Your task to perform on an android device: Go to network settings Image 0: 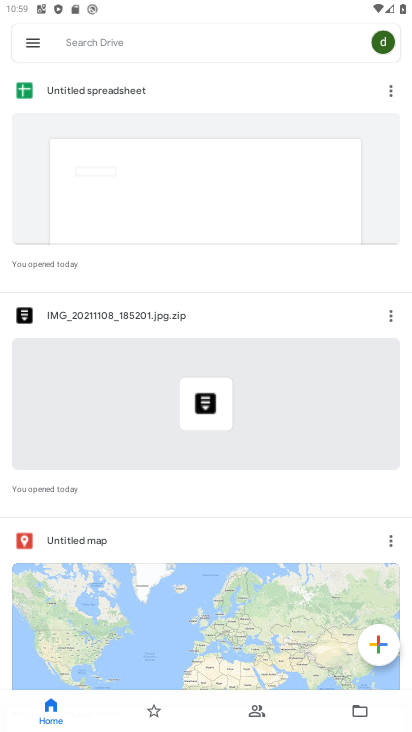
Step 0: press home button
Your task to perform on an android device: Go to network settings Image 1: 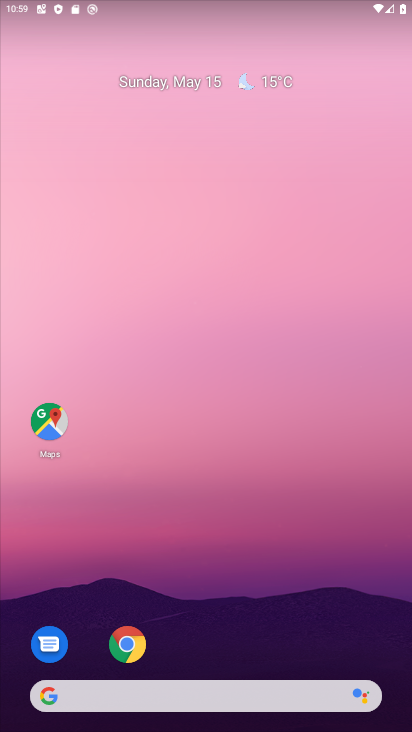
Step 1: drag from (315, 594) to (303, 60)
Your task to perform on an android device: Go to network settings Image 2: 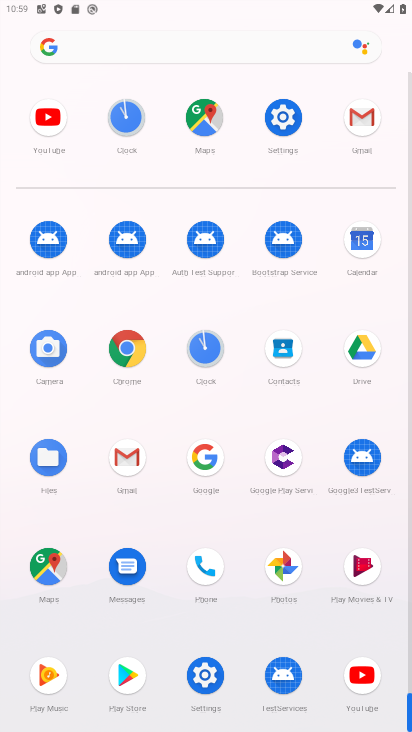
Step 2: click (275, 110)
Your task to perform on an android device: Go to network settings Image 3: 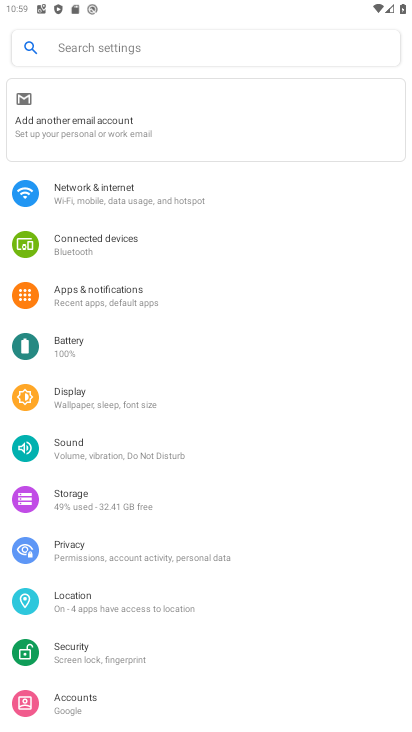
Step 3: click (146, 182)
Your task to perform on an android device: Go to network settings Image 4: 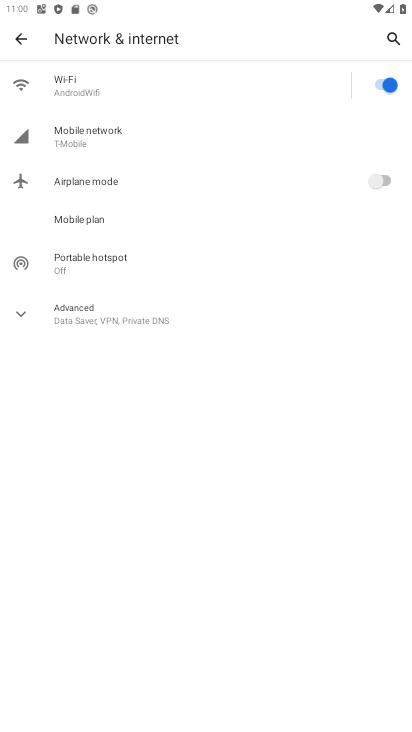
Step 4: task complete